Your task to perform on an android device: Go to Yahoo.com Image 0: 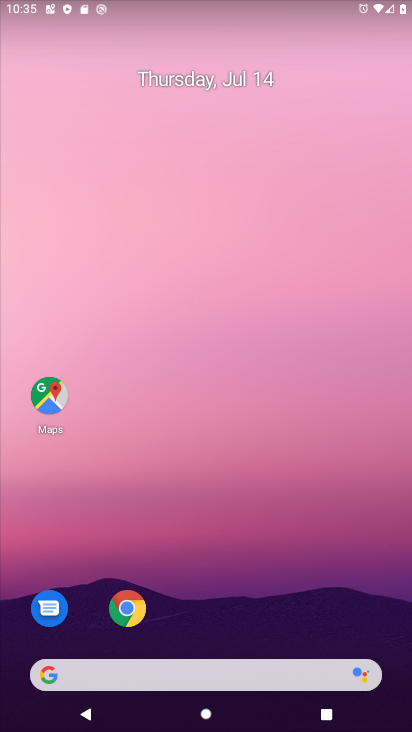
Step 0: click (129, 613)
Your task to perform on an android device: Go to Yahoo.com Image 1: 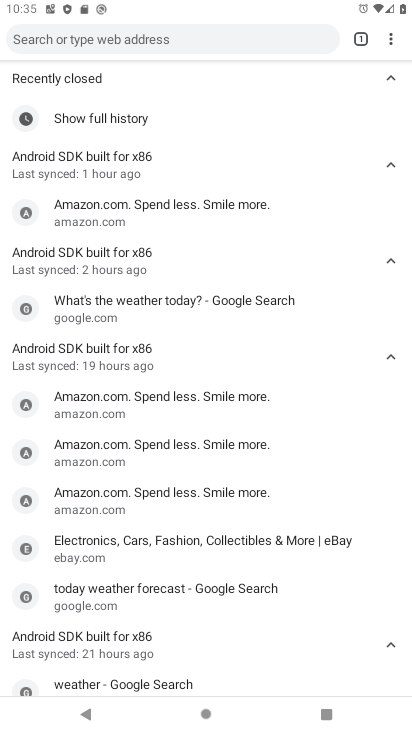
Step 1: click (390, 42)
Your task to perform on an android device: Go to Yahoo.com Image 2: 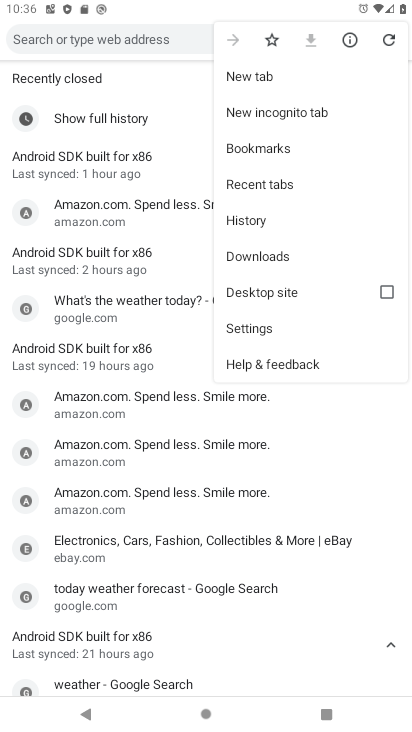
Step 2: click (251, 71)
Your task to perform on an android device: Go to Yahoo.com Image 3: 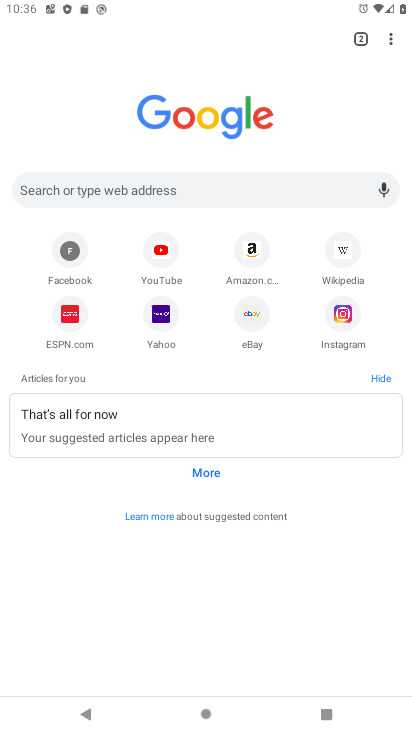
Step 3: click (158, 319)
Your task to perform on an android device: Go to Yahoo.com Image 4: 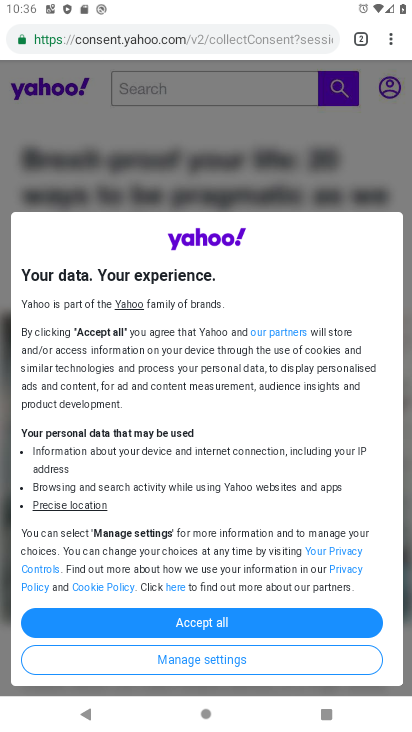
Step 4: task complete